Your task to perform on an android device: open a bookmark in the chrome app Image 0: 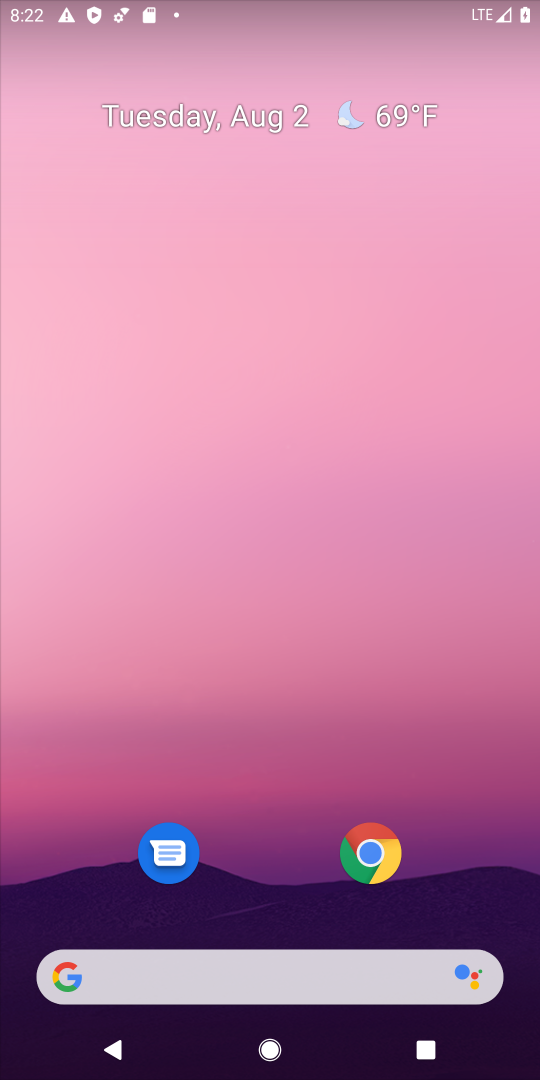
Step 0: click (372, 851)
Your task to perform on an android device: open a bookmark in the chrome app Image 1: 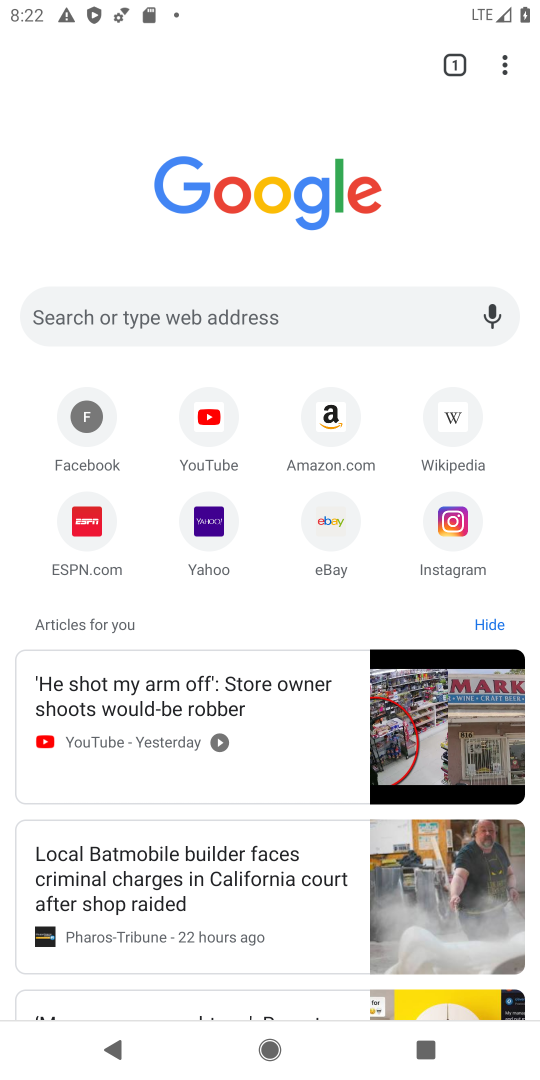
Step 1: click (504, 56)
Your task to perform on an android device: open a bookmark in the chrome app Image 2: 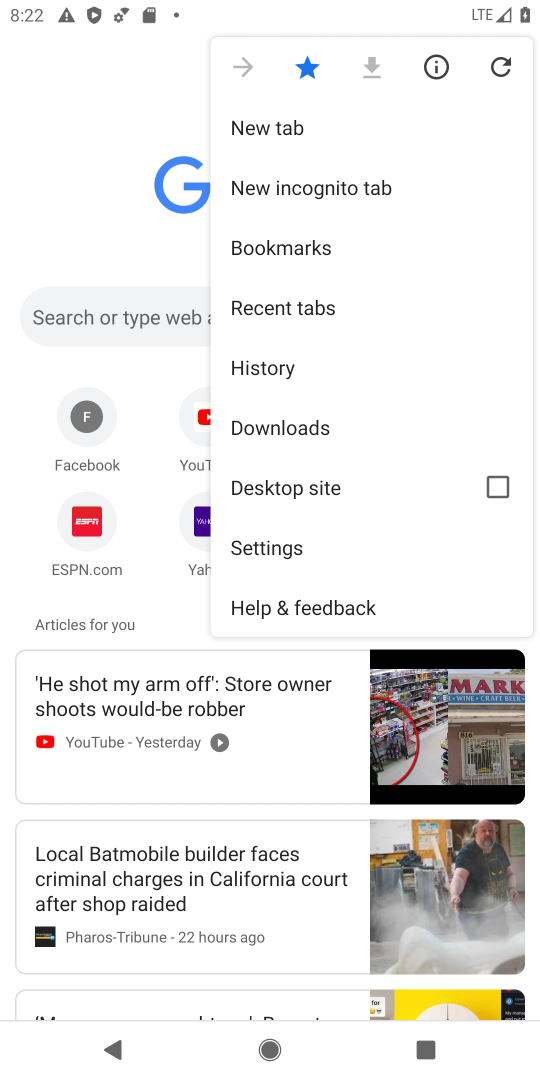
Step 2: click (283, 257)
Your task to perform on an android device: open a bookmark in the chrome app Image 3: 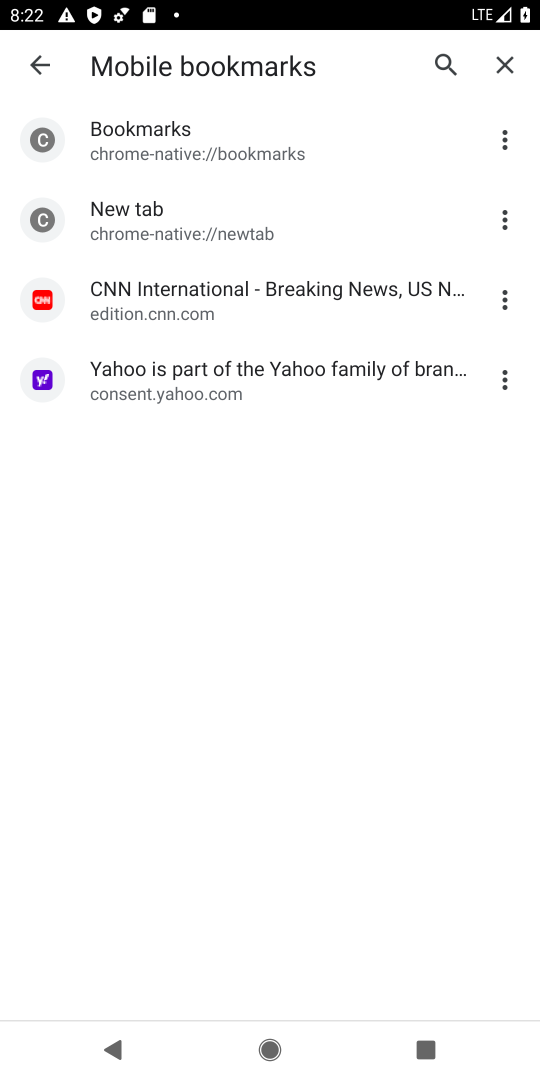
Step 3: task complete